Your task to perform on an android device: turn smart compose on in the gmail app Image 0: 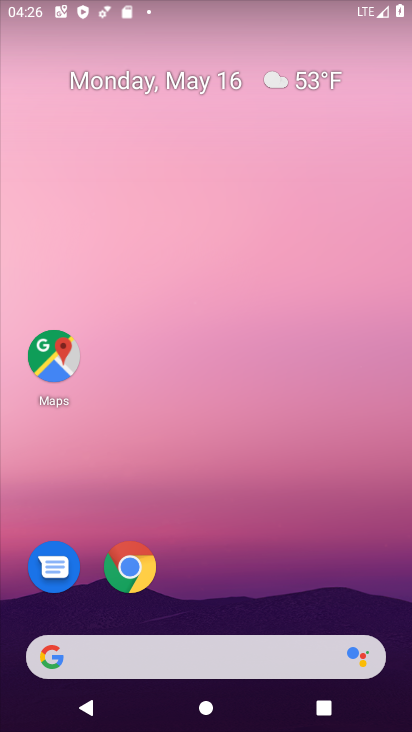
Step 0: drag from (311, 642) to (242, 87)
Your task to perform on an android device: turn smart compose on in the gmail app Image 1: 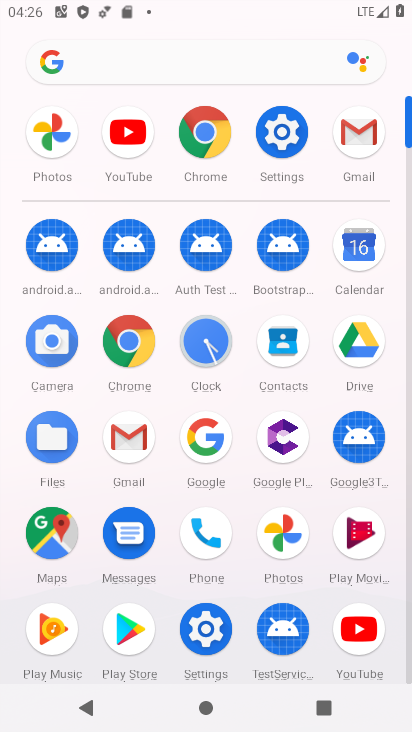
Step 1: click (128, 438)
Your task to perform on an android device: turn smart compose on in the gmail app Image 2: 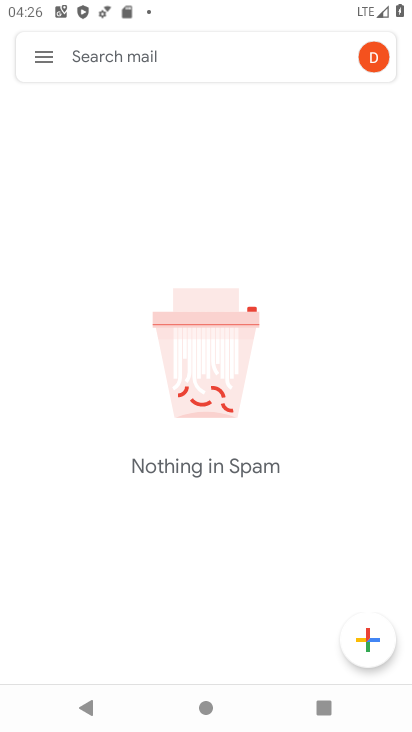
Step 2: click (38, 56)
Your task to perform on an android device: turn smart compose on in the gmail app Image 3: 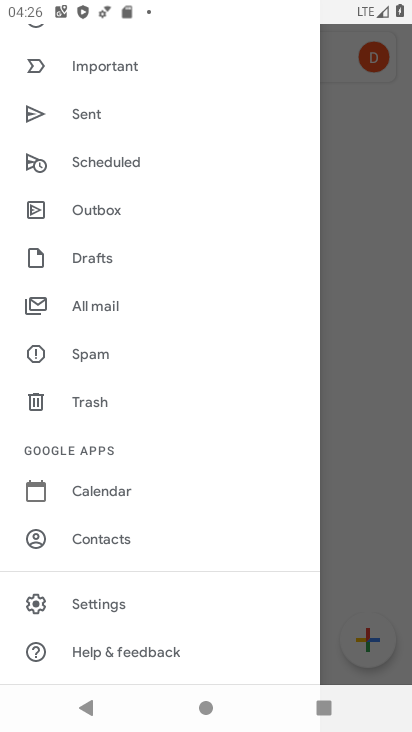
Step 3: click (132, 606)
Your task to perform on an android device: turn smart compose on in the gmail app Image 4: 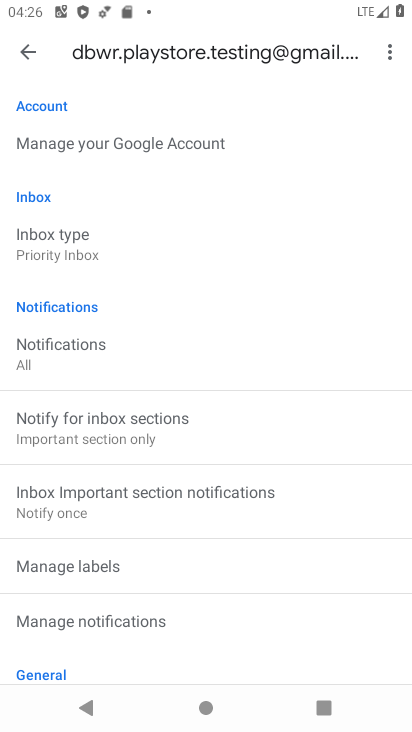
Step 4: task complete